Your task to perform on an android device: open a new tab in the chrome app Image 0: 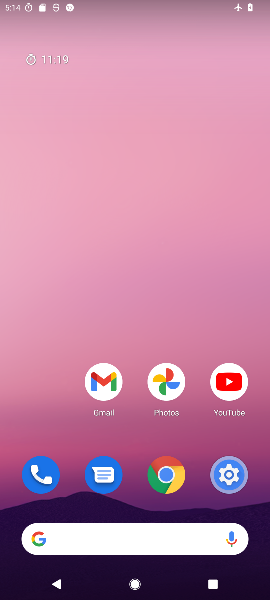
Step 0: press home button
Your task to perform on an android device: open a new tab in the chrome app Image 1: 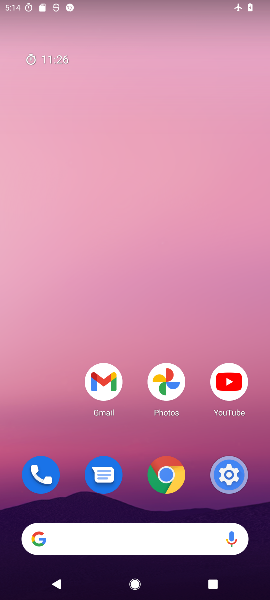
Step 1: drag from (62, 428) to (59, 182)
Your task to perform on an android device: open a new tab in the chrome app Image 2: 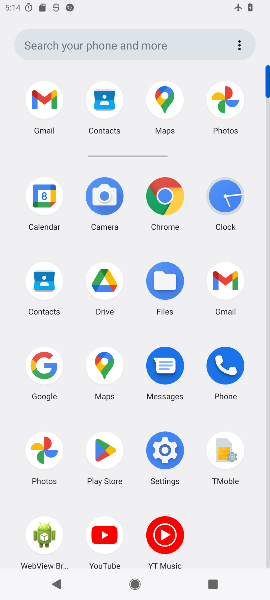
Step 2: click (166, 198)
Your task to perform on an android device: open a new tab in the chrome app Image 3: 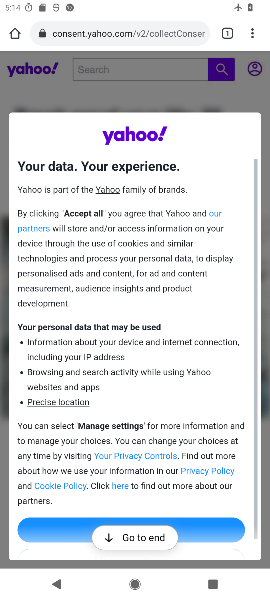
Step 3: click (249, 33)
Your task to perform on an android device: open a new tab in the chrome app Image 4: 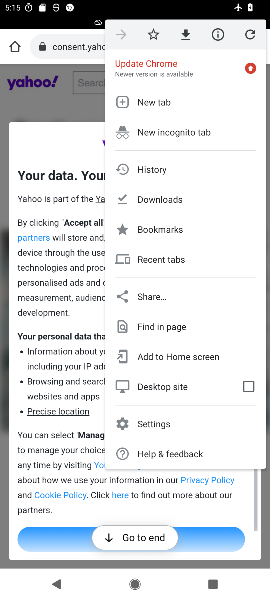
Step 4: drag from (208, 361) to (205, 268)
Your task to perform on an android device: open a new tab in the chrome app Image 5: 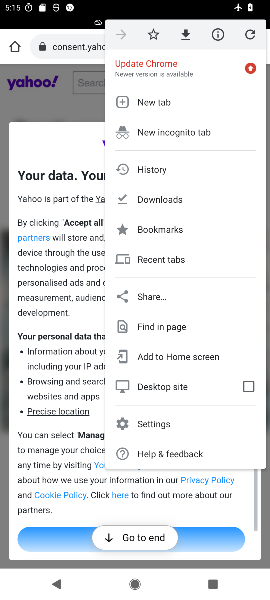
Step 5: click (164, 106)
Your task to perform on an android device: open a new tab in the chrome app Image 6: 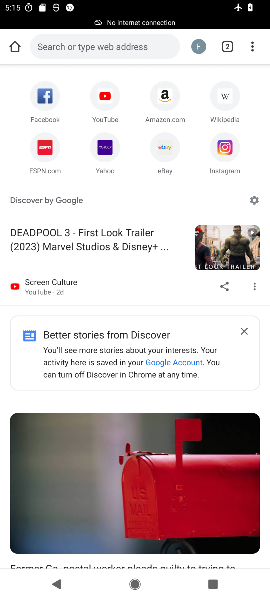
Step 6: task complete